Your task to perform on an android device: Toggle the flashlight Image 0: 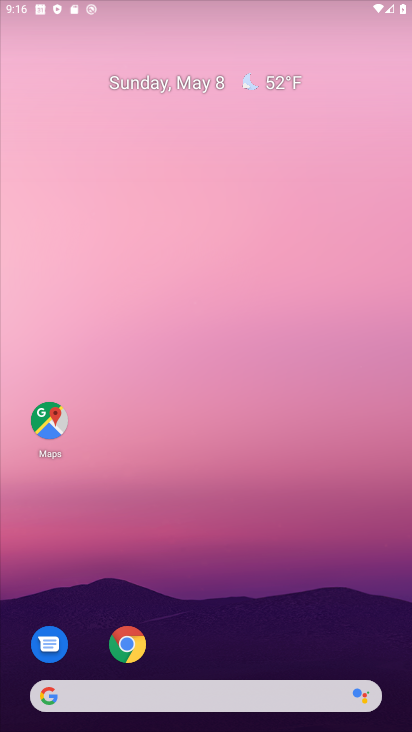
Step 0: drag from (184, 681) to (264, 155)
Your task to perform on an android device: Toggle the flashlight Image 1: 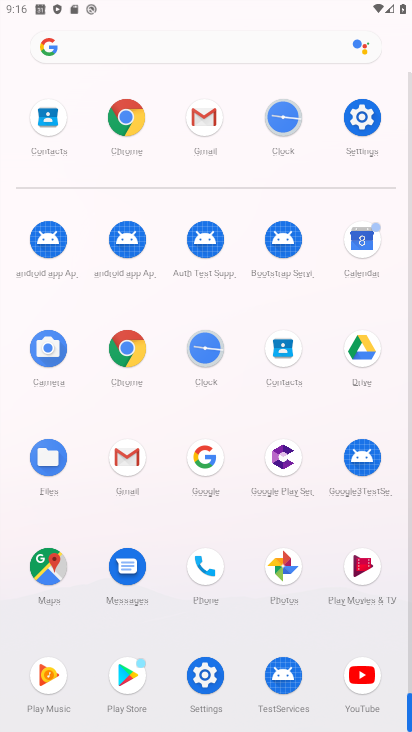
Step 1: click (355, 119)
Your task to perform on an android device: Toggle the flashlight Image 2: 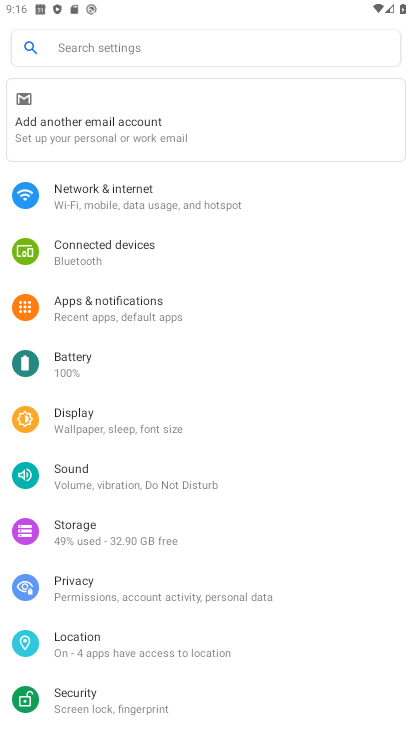
Step 2: click (121, 48)
Your task to perform on an android device: Toggle the flashlight Image 3: 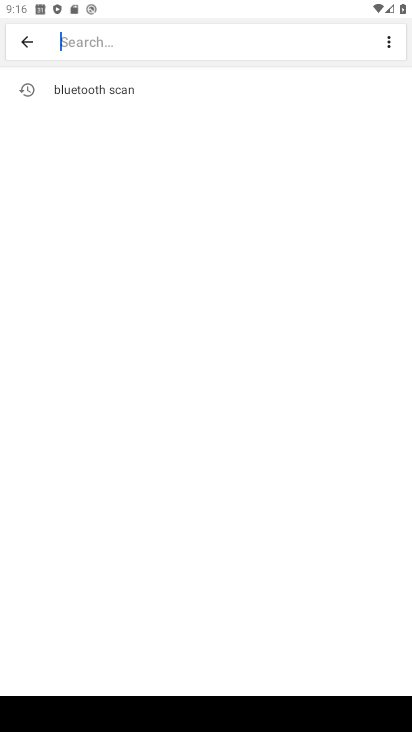
Step 3: type "flashlight"
Your task to perform on an android device: Toggle the flashlight Image 4: 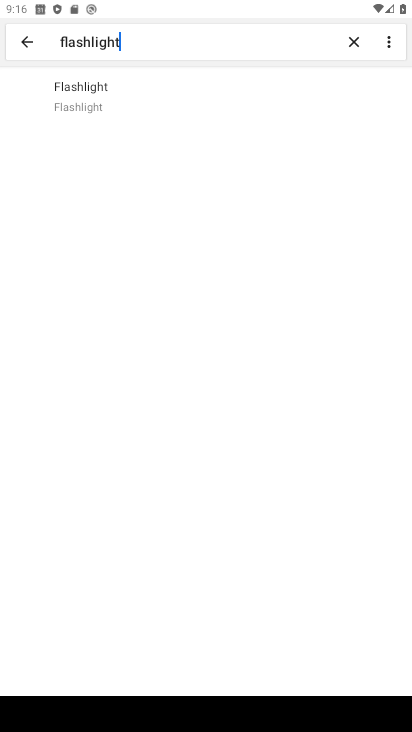
Step 4: click (113, 104)
Your task to perform on an android device: Toggle the flashlight Image 5: 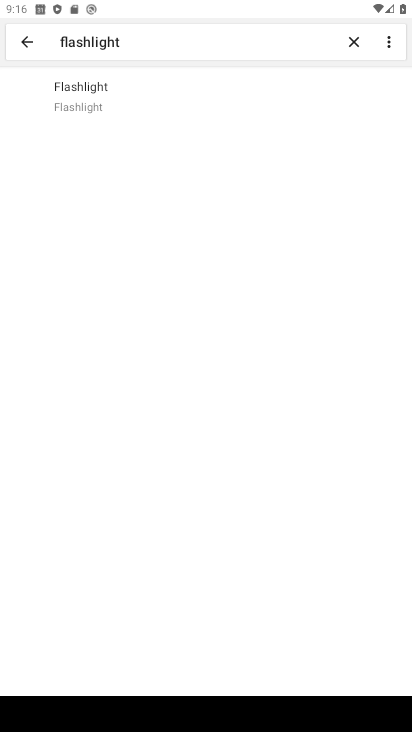
Step 5: task complete